Your task to perform on an android device: check android version Image 0: 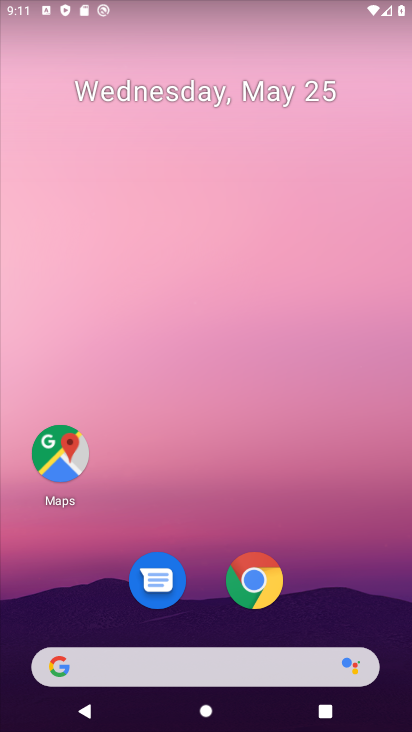
Step 0: drag from (7, 713) to (322, 141)
Your task to perform on an android device: check android version Image 1: 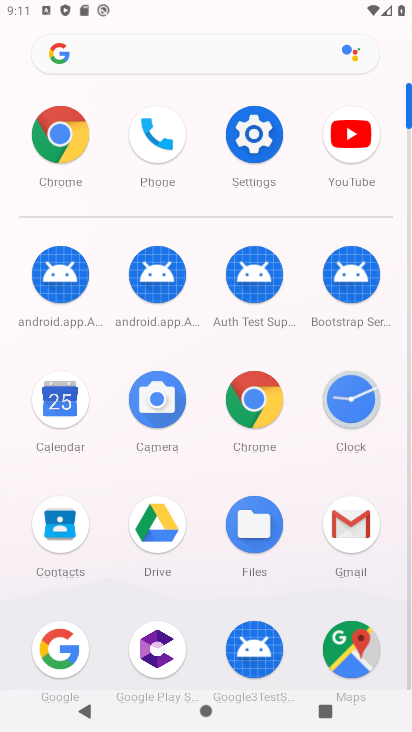
Step 1: click (254, 129)
Your task to perform on an android device: check android version Image 2: 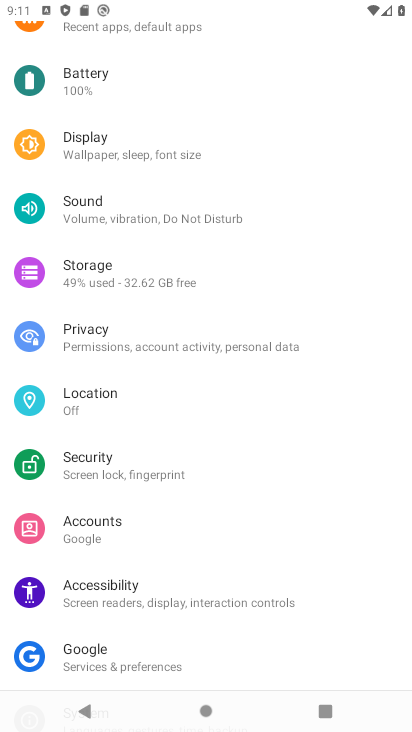
Step 2: drag from (114, 542) to (221, 170)
Your task to perform on an android device: check android version Image 3: 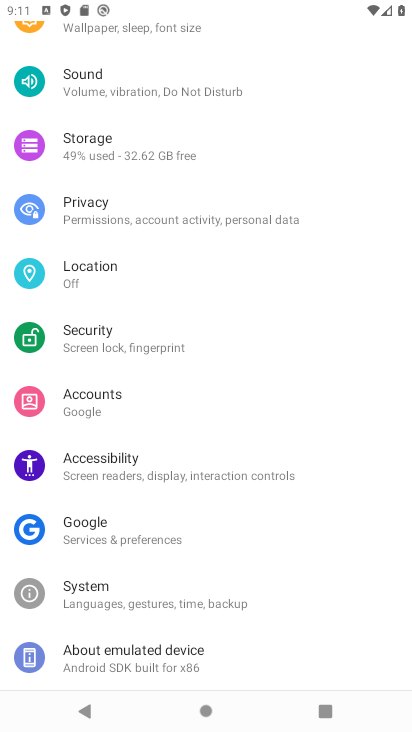
Step 3: click (130, 580)
Your task to perform on an android device: check android version Image 4: 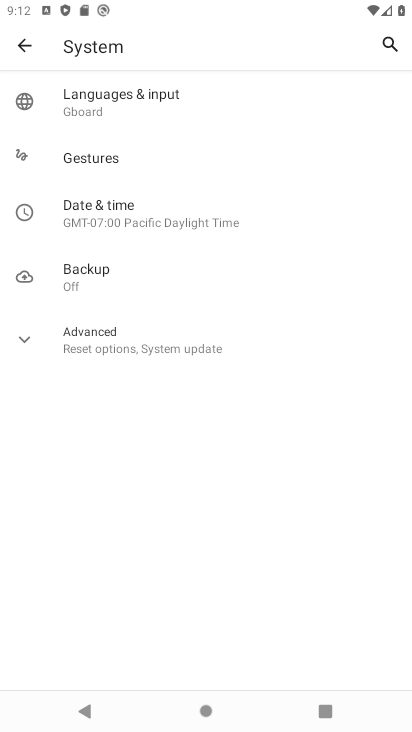
Step 4: press back button
Your task to perform on an android device: check android version Image 5: 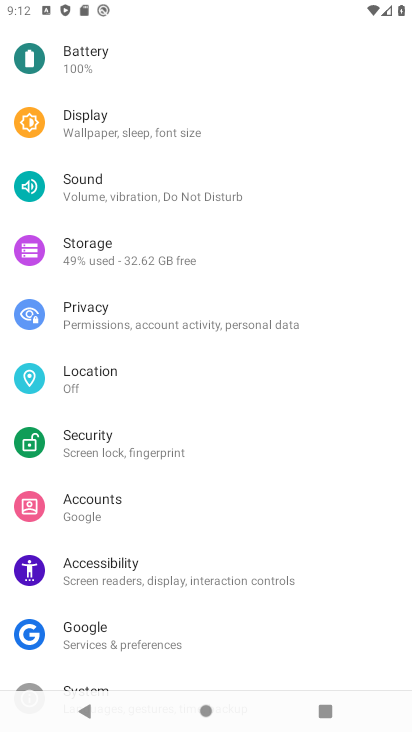
Step 5: drag from (0, 643) to (177, 107)
Your task to perform on an android device: check android version Image 6: 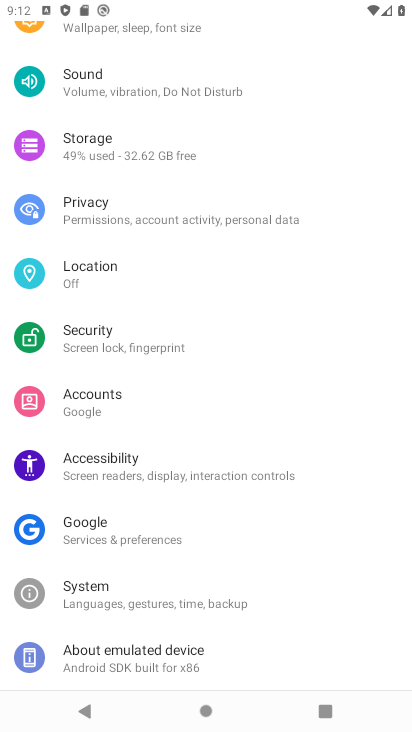
Step 6: drag from (96, 664) to (173, 264)
Your task to perform on an android device: check android version Image 7: 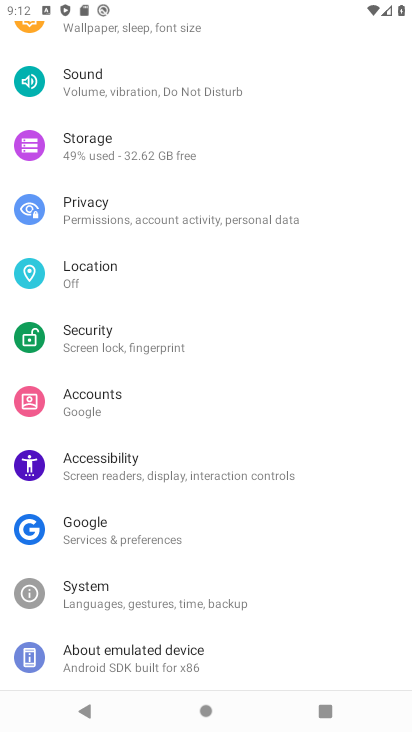
Step 7: click (189, 650)
Your task to perform on an android device: check android version Image 8: 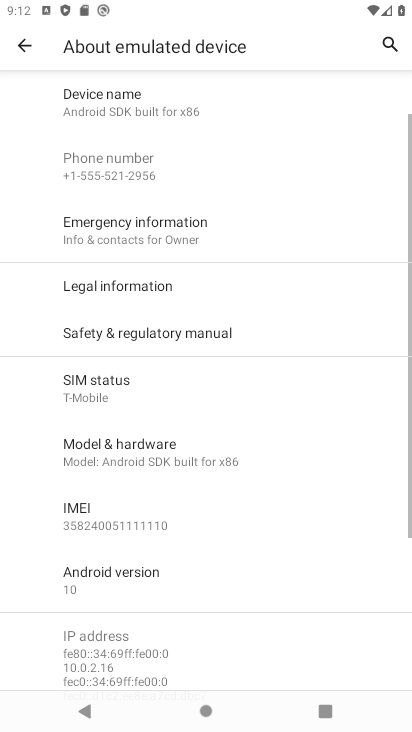
Step 8: drag from (15, 681) to (176, 302)
Your task to perform on an android device: check android version Image 9: 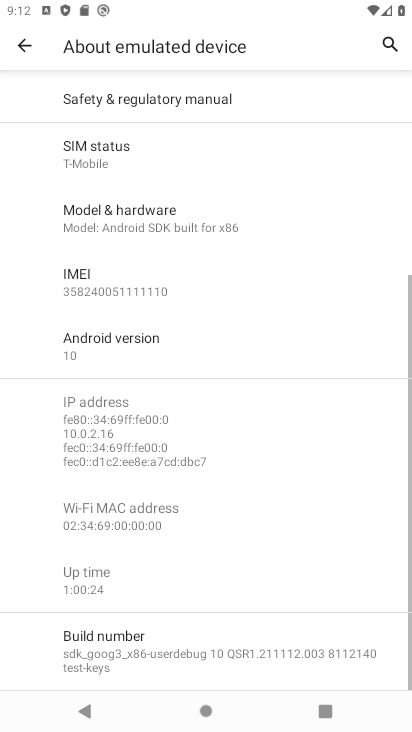
Step 9: click (121, 660)
Your task to perform on an android device: check android version Image 10: 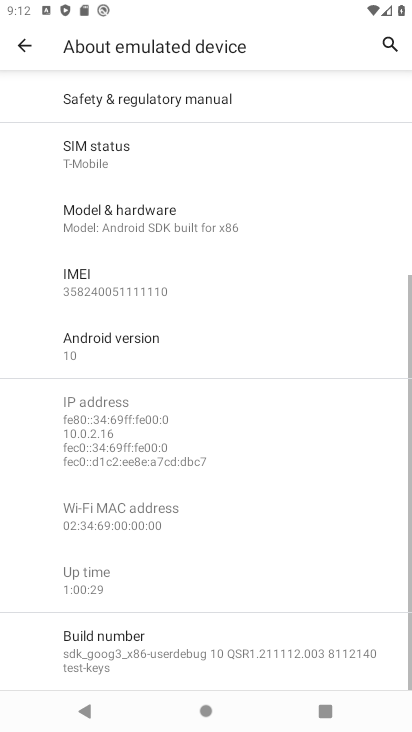
Step 10: click (144, 328)
Your task to perform on an android device: check android version Image 11: 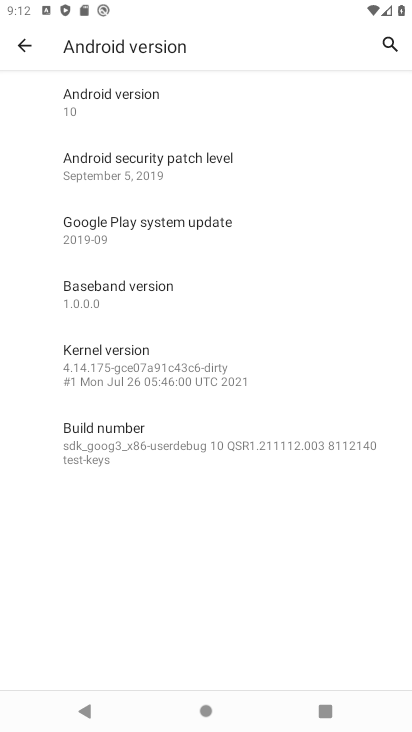
Step 11: click (145, 98)
Your task to perform on an android device: check android version Image 12: 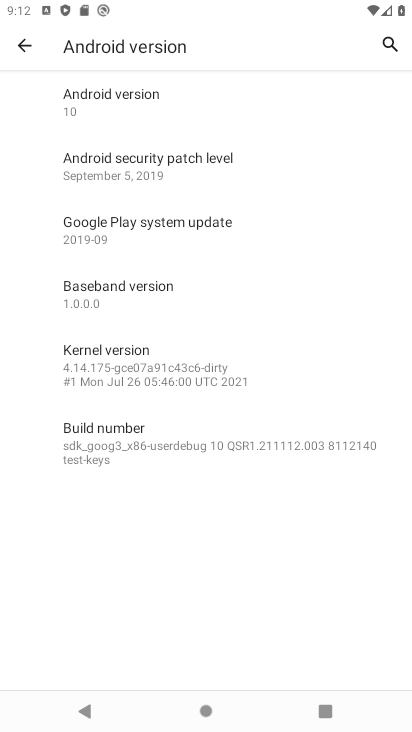
Step 12: task complete